Your task to perform on an android device: Go to location settings Image 0: 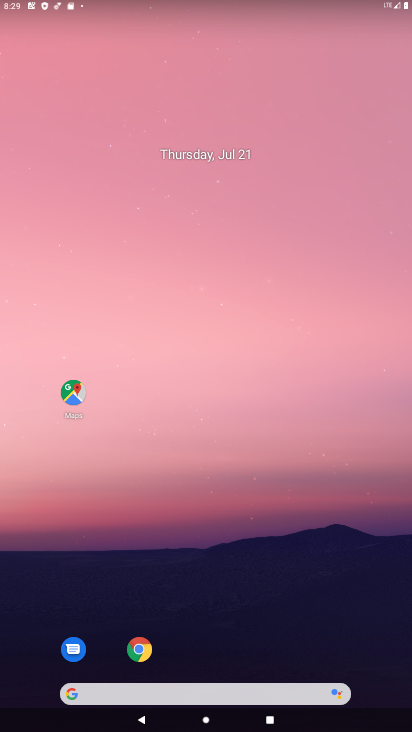
Step 0: drag from (226, 657) to (243, 91)
Your task to perform on an android device: Go to location settings Image 1: 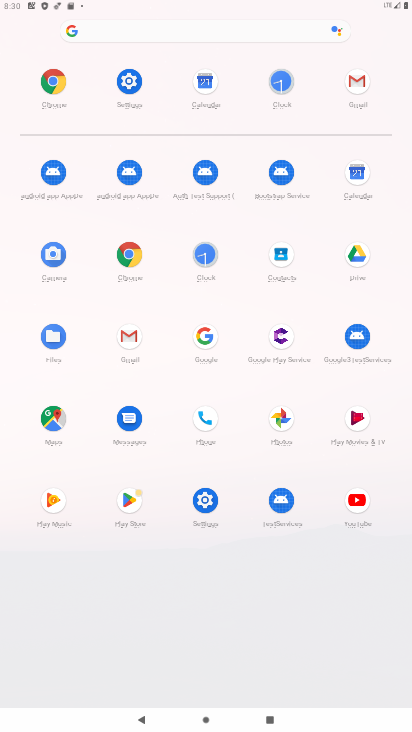
Step 1: click (137, 82)
Your task to perform on an android device: Go to location settings Image 2: 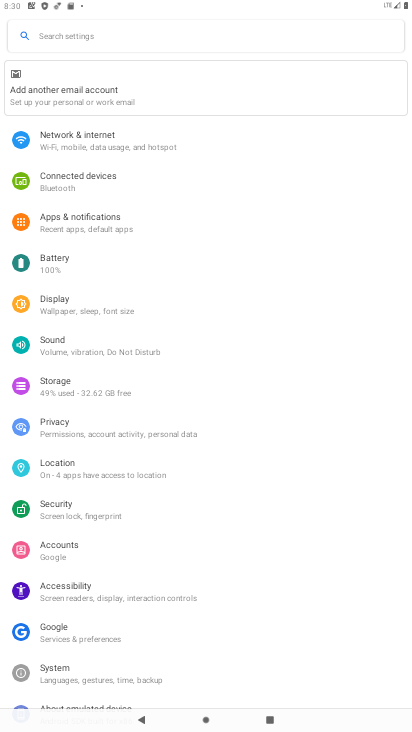
Step 2: click (125, 475)
Your task to perform on an android device: Go to location settings Image 3: 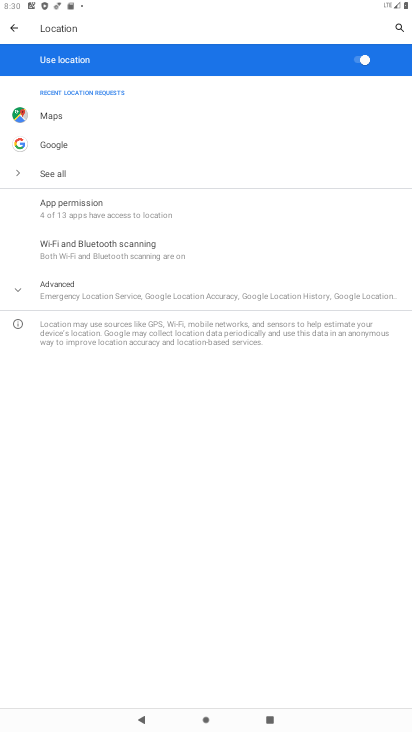
Step 3: task complete